Your task to perform on an android device: Open maps Image 0: 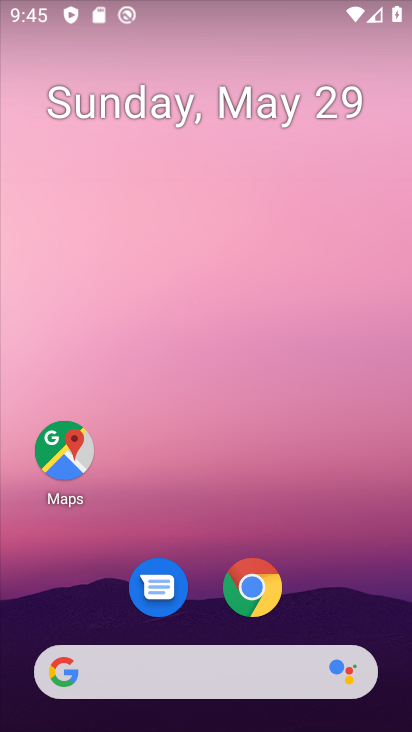
Step 0: click (67, 460)
Your task to perform on an android device: Open maps Image 1: 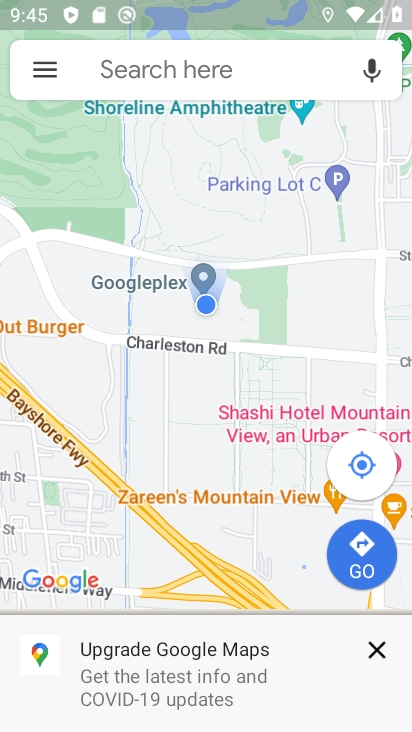
Step 1: task complete